Your task to perform on an android device: turn off smart reply in the gmail app Image 0: 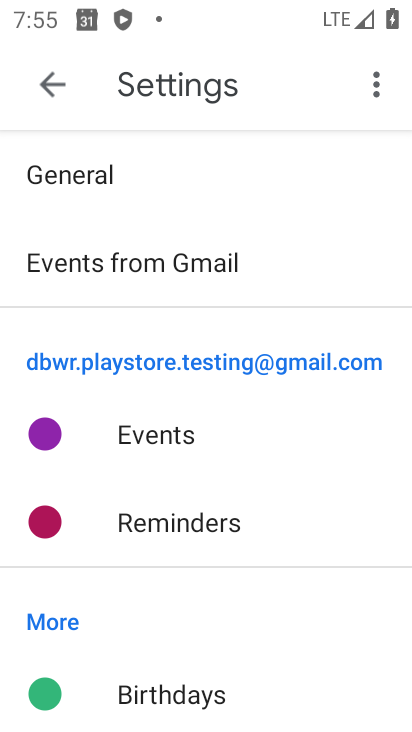
Step 0: press home button
Your task to perform on an android device: turn off smart reply in the gmail app Image 1: 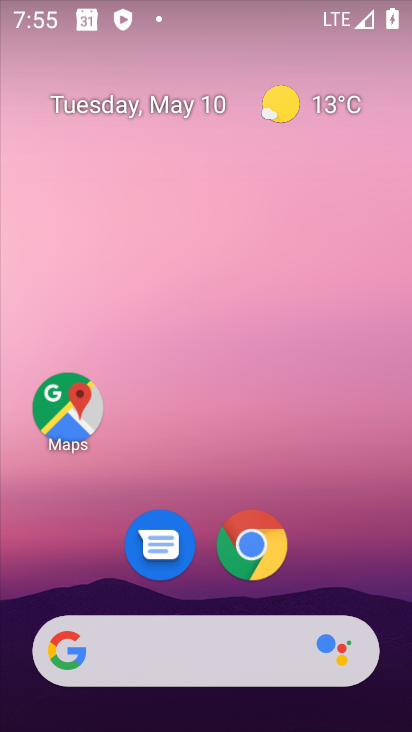
Step 1: drag from (211, 588) to (202, 112)
Your task to perform on an android device: turn off smart reply in the gmail app Image 2: 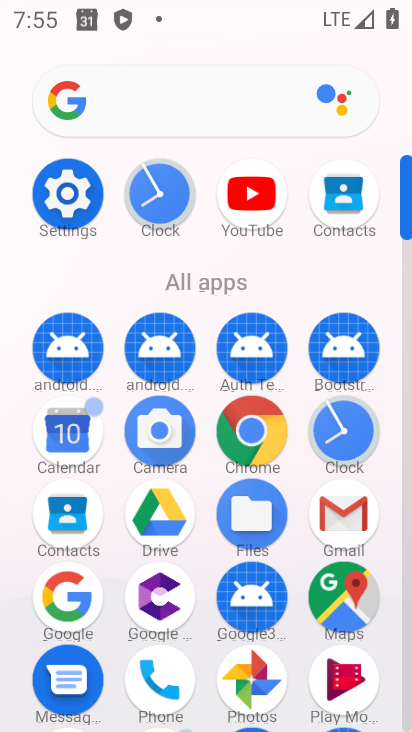
Step 2: click (342, 509)
Your task to perform on an android device: turn off smart reply in the gmail app Image 3: 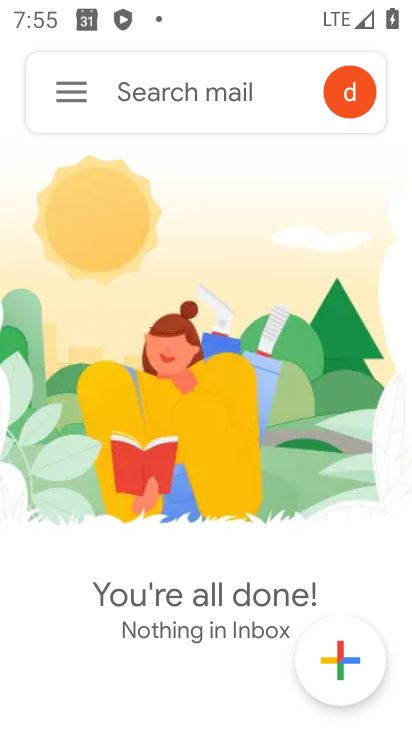
Step 3: click (66, 88)
Your task to perform on an android device: turn off smart reply in the gmail app Image 4: 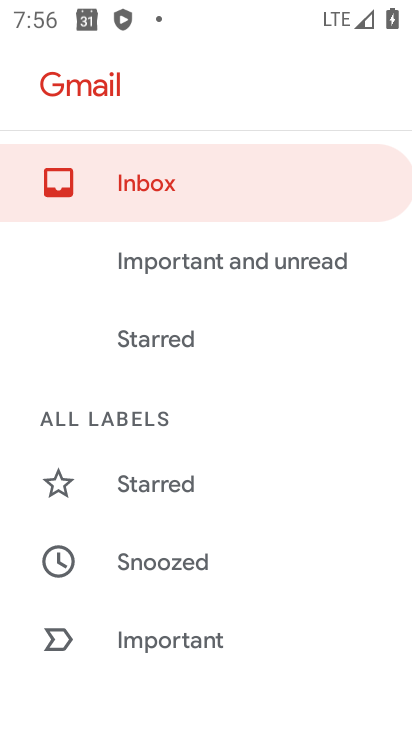
Step 4: drag from (190, 654) to (214, 136)
Your task to perform on an android device: turn off smart reply in the gmail app Image 5: 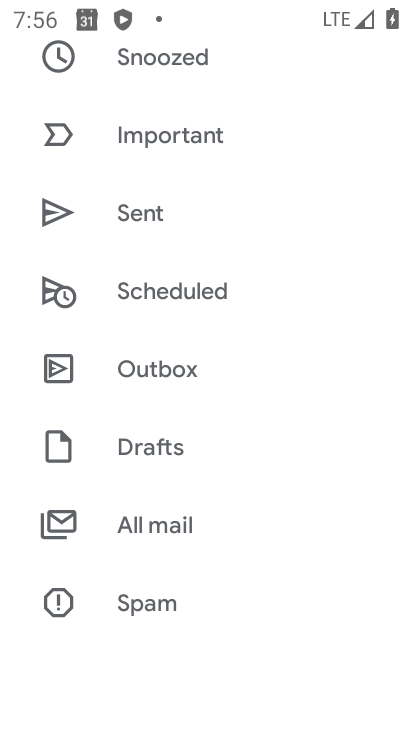
Step 5: drag from (196, 608) to (207, 233)
Your task to perform on an android device: turn off smart reply in the gmail app Image 6: 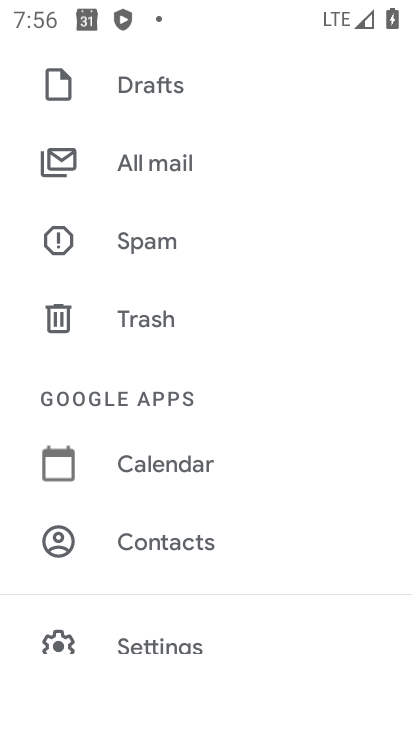
Step 6: click (215, 640)
Your task to perform on an android device: turn off smart reply in the gmail app Image 7: 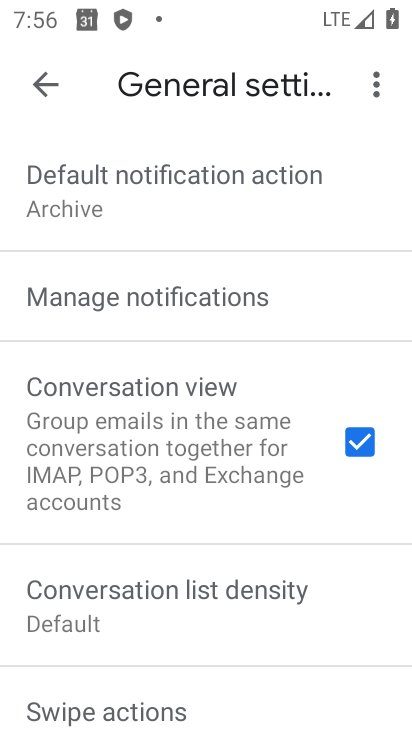
Step 7: click (53, 79)
Your task to perform on an android device: turn off smart reply in the gmail app Image 8: 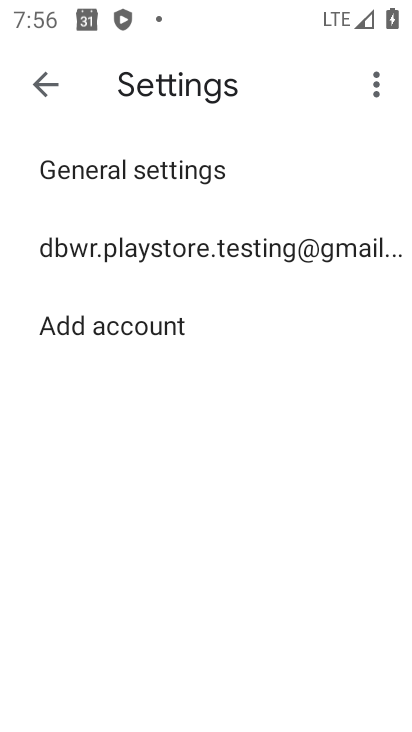
Step 8: click (188, 255)
Your task to perform on an android device: turn off smart reply in the gmail app Image 9: 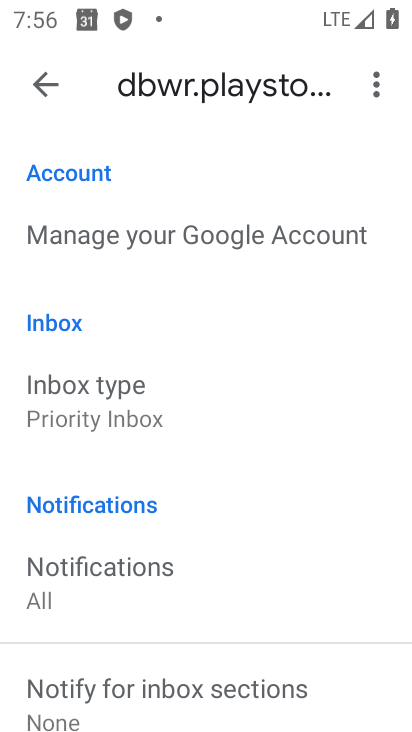
Step 9: drag from (207, 604) to (214, 142)
Your task to perform on an android device: turn off smart reply in the gmail app Image 10: 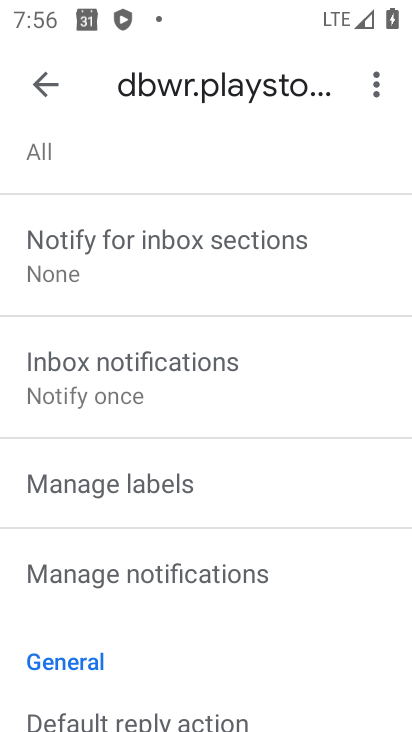
Step 10: drag from (175, 673) to (188, 133)
Your task to perform on an android device: turn off smart reply in the gmail app Image 11: 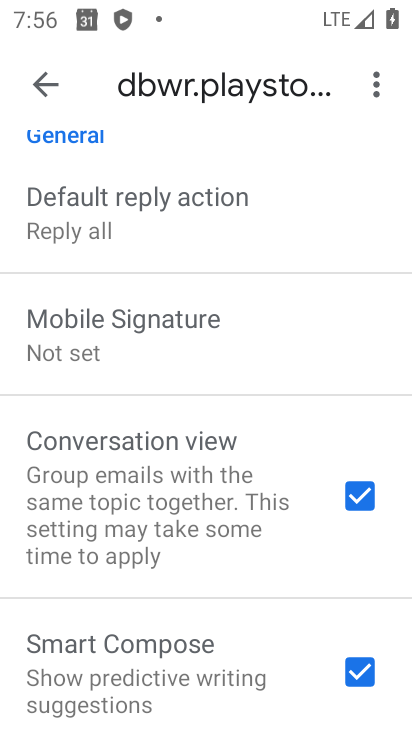
Step 11: drag from (237, 630) to (238, 159)
Your task to perform on an android device: turn off smart reply in the gmail app Image 12: 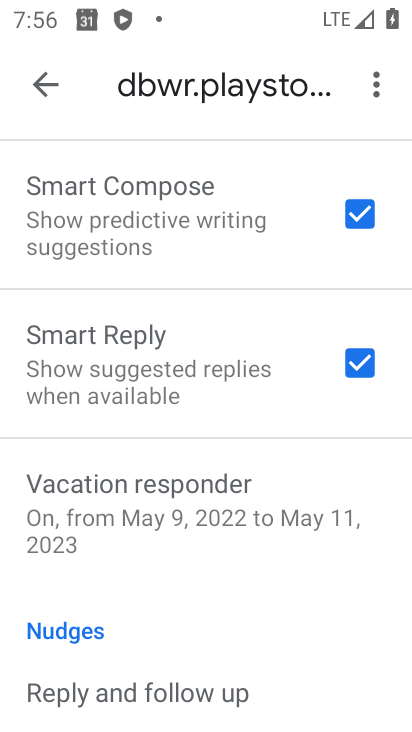
Step 12: click (347, 358)
Your task to perform on an android device: turn off smart reply in the gmail app Image 13: 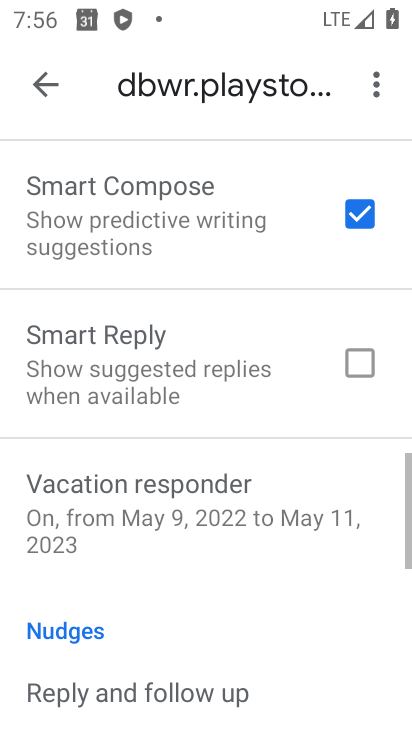
Step 13: task complete